Your task to perform on an android device: Go to CNN.com Image 0: 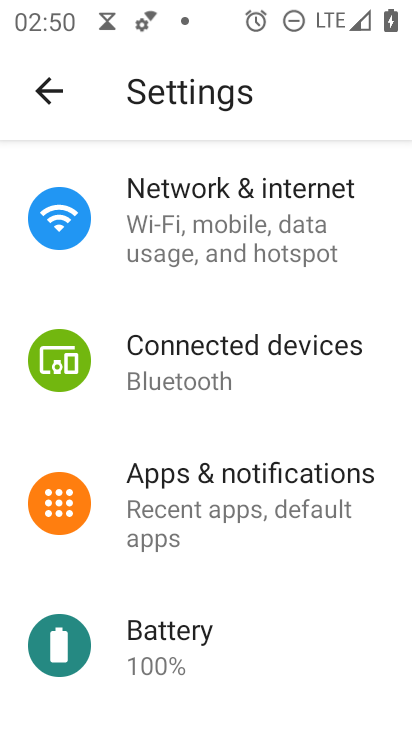
Step 0: click (37, 87)
Your task to perform on an android device: Go to CNN.com Image 1: 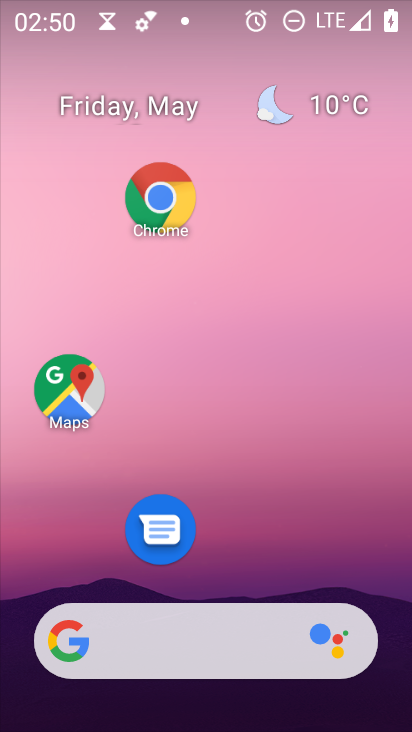
Step 1: click (167, 193)
Your task to perform on an android device: Go to CNN.com Image 2: 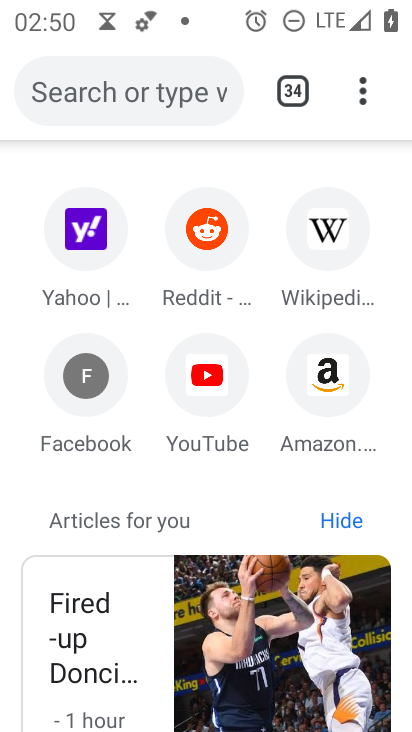
Step 2: click (142, 96)
Your task to perform on an android device: Go to CNN.com Image 3: 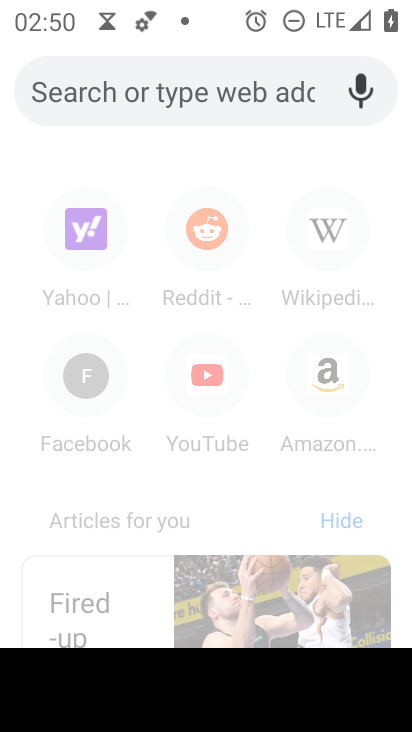
Step 3: type " CNN.com"
Your task to perform on an android device: Go to CNN.com Image 4: 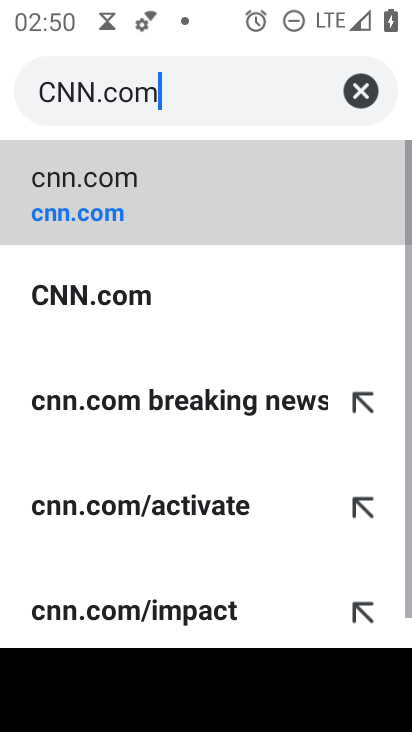
Step 4: click (200, 185)
Your task to perform on an android device: Go to CNN.com Image 5: 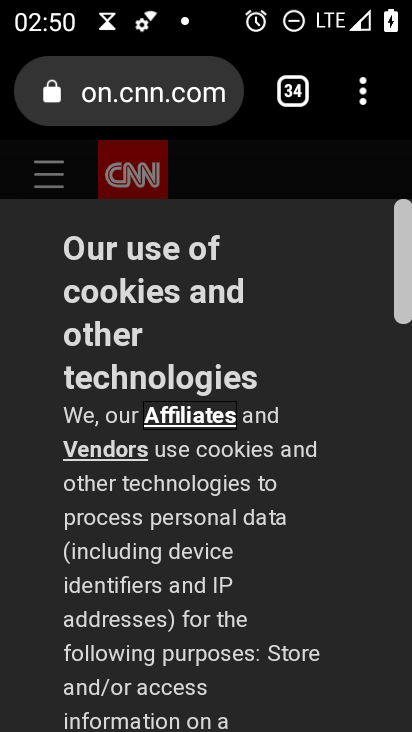
Step 5: task complete